Your task to perform on an android device: Go to accessibility settings Image 0: 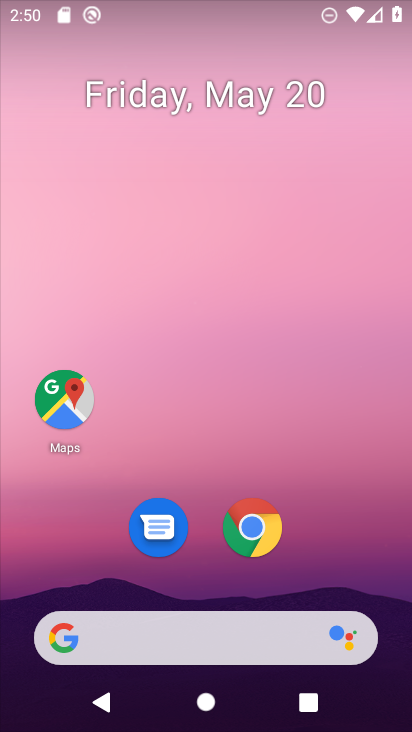
Step 0: drag from (204, 488) to (290, 54)
Your task to perform on an android device: Go to accessibility settings Image 1: 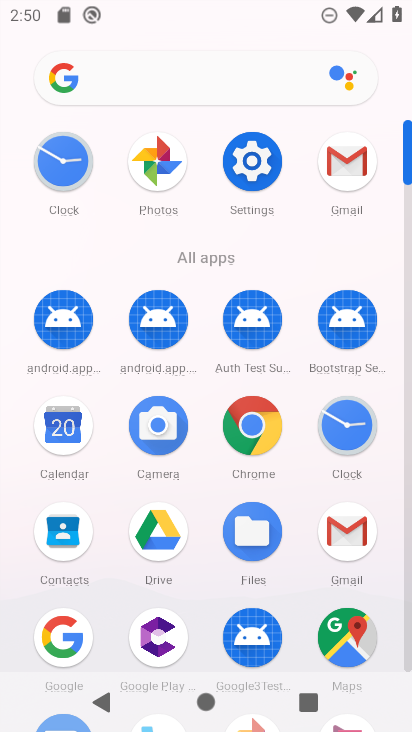
Step 1: click (252, 152)
Your task to perform on an android device: Go to accessibility settings Image 2: 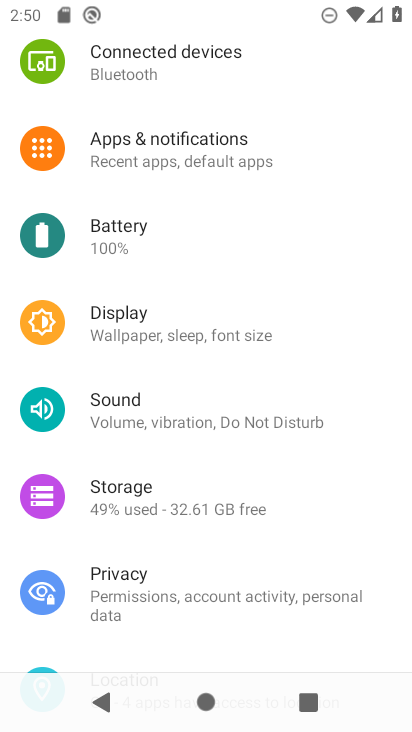
Step 2: drag from (237, 188) to (174, 647)
Your task to perform on an android device: Go to accessibility settings Image 3: 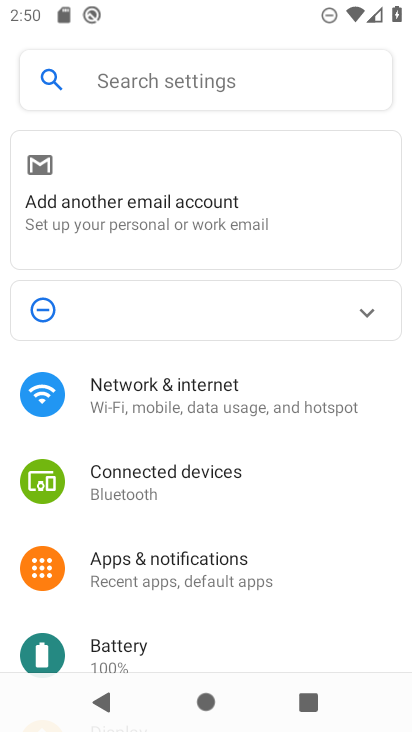
Step 3: drag from (173, 636) to (288, 10)
Your task to perform on an android device: Go to accessibility settings Image 4: 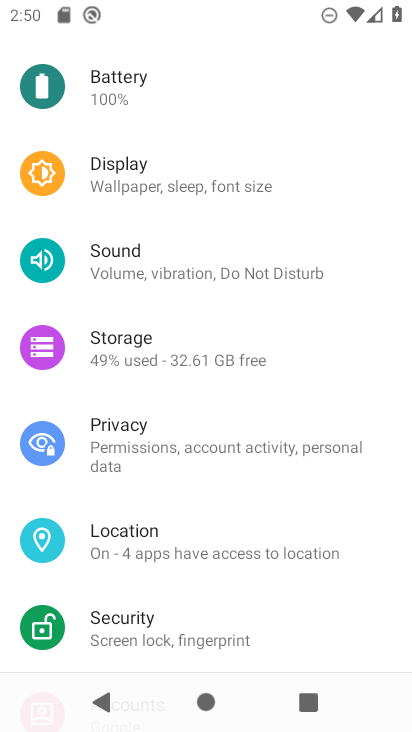
Step 4: drag from (161, 552) to (318, 12)
Your task to perform on an android device: Go to accessibility settings Image 5: 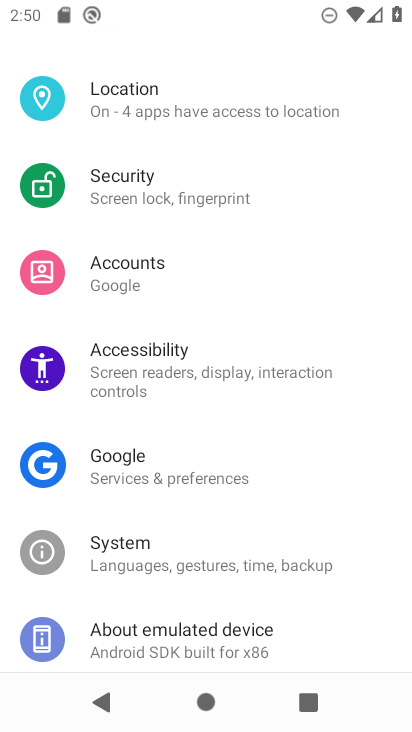
Step 5: click (175, 362)
Your task to perform on an android device: Go to accessibility settings Image 6: 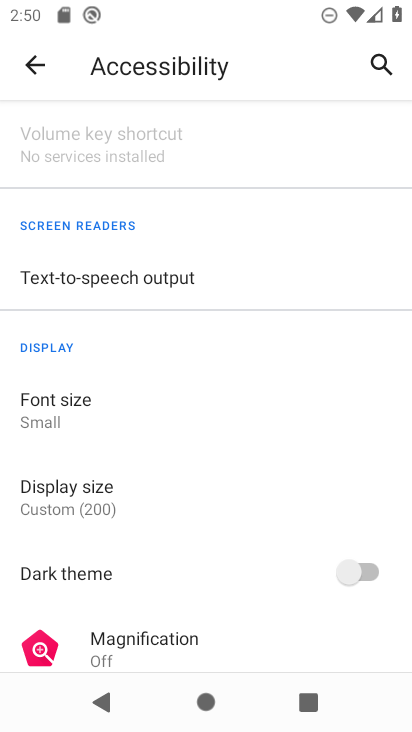
Step 6: task complete